Your task to perform on an android device: Open sound settings Image 0: 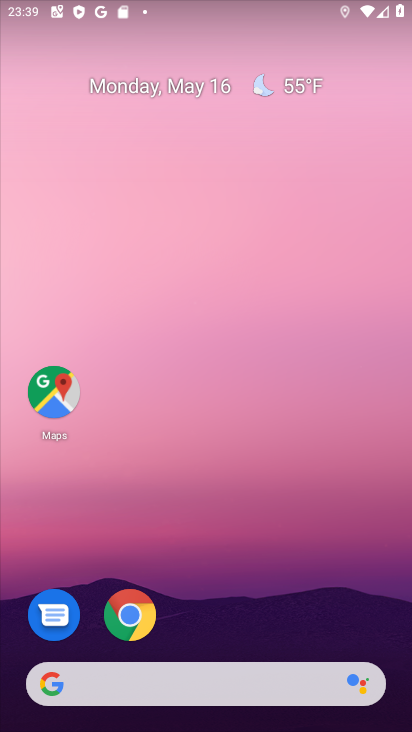
Step 0: drag from (167, 657) to (102, 16)
Your task to perform on an android device: Open sound settings Image 1: 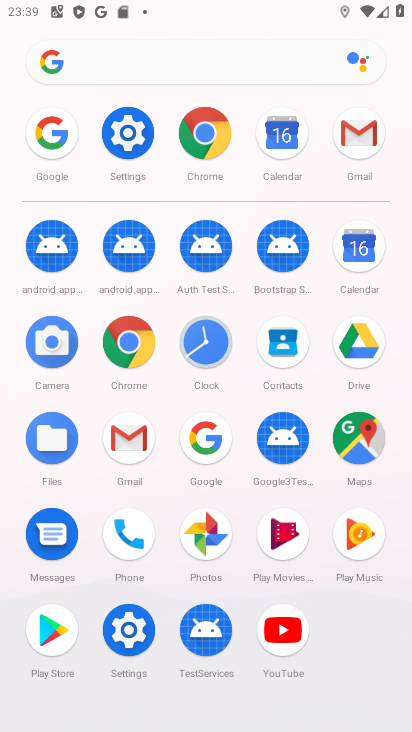
Step 1: click (129, 153)
Your task to perform on an android device: Open sound settings Image 2: 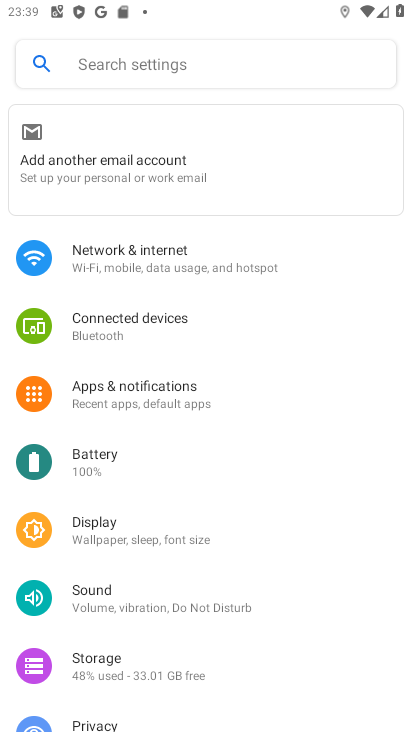
Step 2: click (131, 592)
Your task to perform on an android device: Open sound settings Image 3: 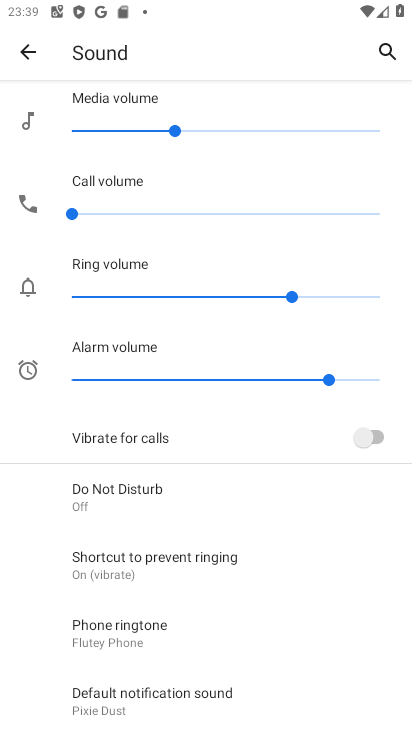
Step 3: task complete